Your task to perform on an android device: Open privacy settings Image 0: 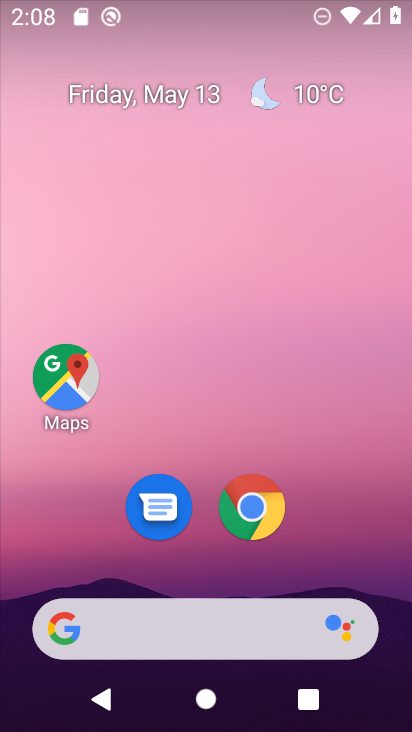
Step 0: drag from (358, 510) to (365, 94)
Your task to perform on an android device: Open privacy settings Image 1: 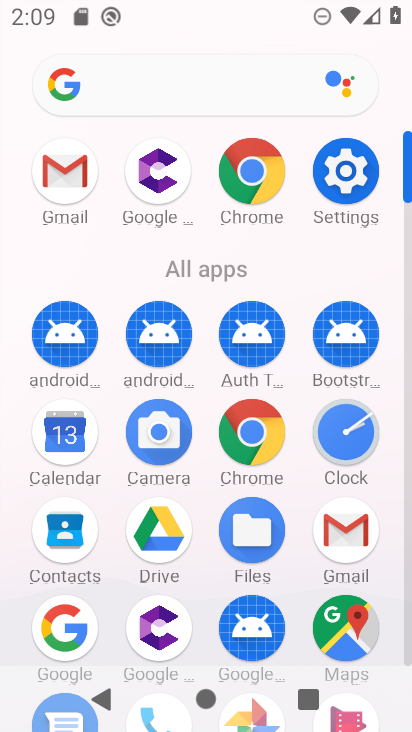
Step 1: click (335, 179)
Your task to perform on an android device: Open privacy settings Image 2: 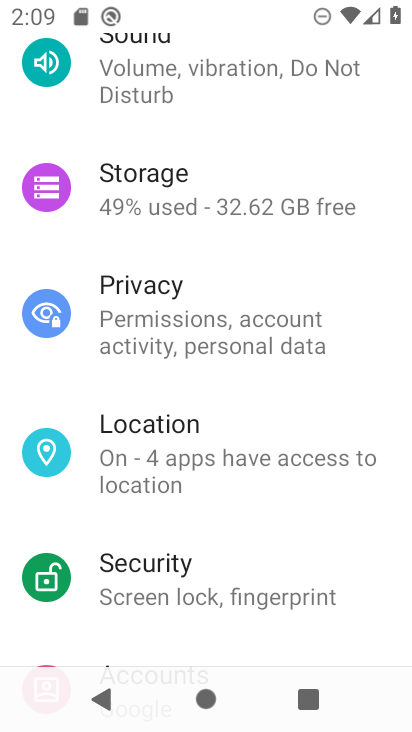
Step 2: drag from (213, 539) to (243, 376)
Your task to perform on an android device: Open privacy settings Image 3: 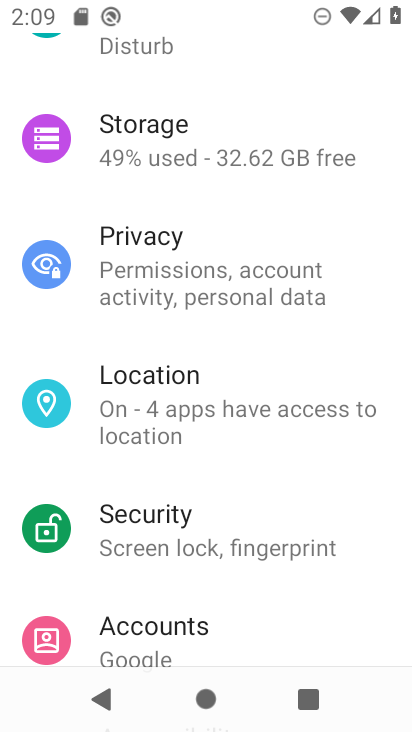
Step 3: click (172, 255)
Your task to perform on an android device: Open privacy settings Image 4: 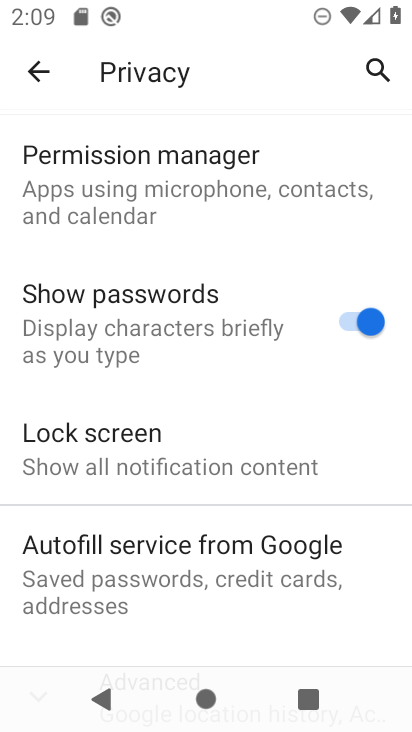
Step 4: task complete